Your task to perform on an android device: Open the map Image 0: 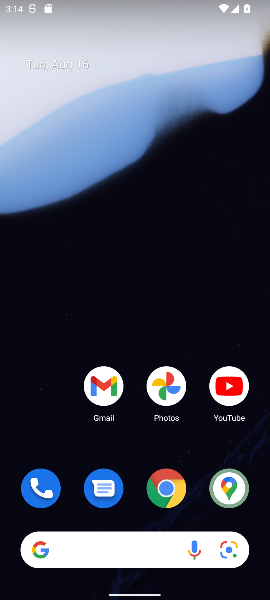
Step 0: click (235, 485)
Your task to perform on an android device: Open the map Image 1: 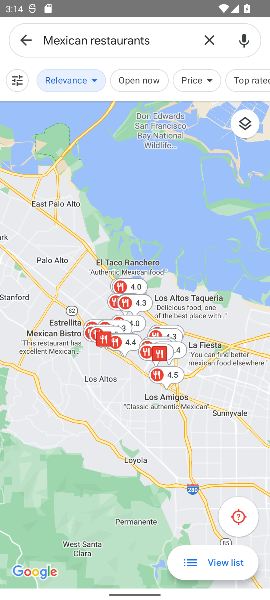
Step 1: task complete